Your task to perform on an android device: Open the Play Movies app and select the watchlist tab. Image 0: 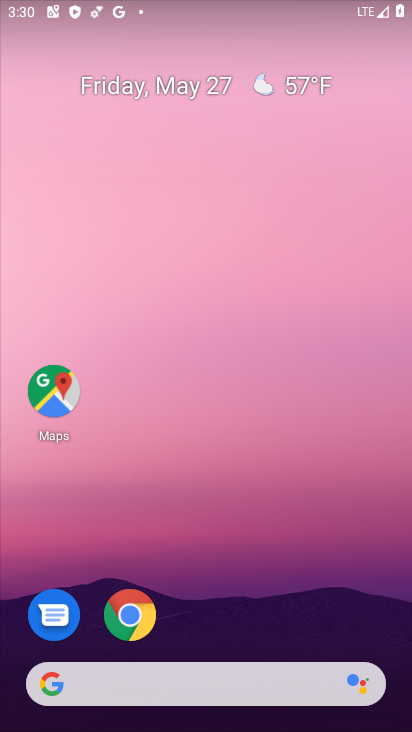
Step 0: drag from (266, 607) to (392, 491)
Your task to perform on an android device: Open the Play Movies app and select the watchlist tab. Image 1: 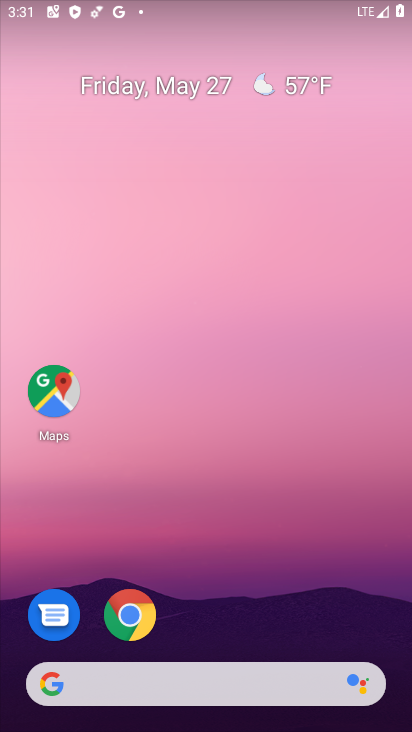
Step 1: drag from (205, 641) to (216, 165)
Your task to perform on an android device: Open the Play Movies app and select the watchlist tab. Image 2: 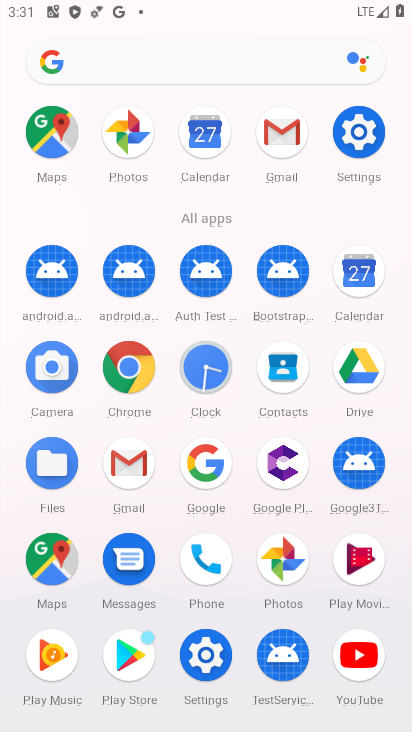
Step 2: click (344, 607)
Your task to perform on an android device: Open the Play Movies app and select the watchlist tab. Image 3: 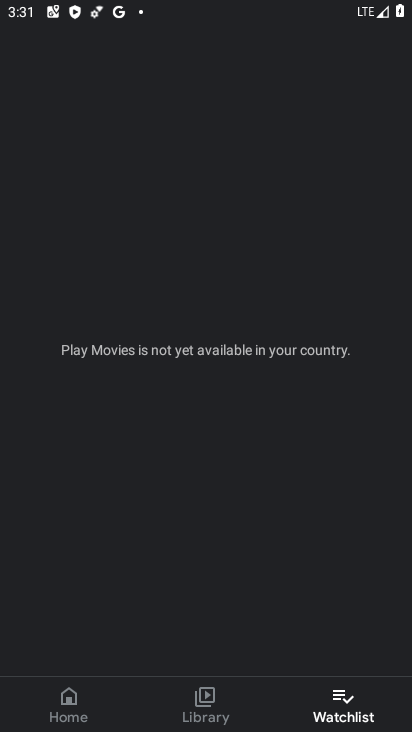
Step 3: click (342, 717)
Your task to perform on an android device: Open the Play Movies app and select the watchlist tab. Image 4: 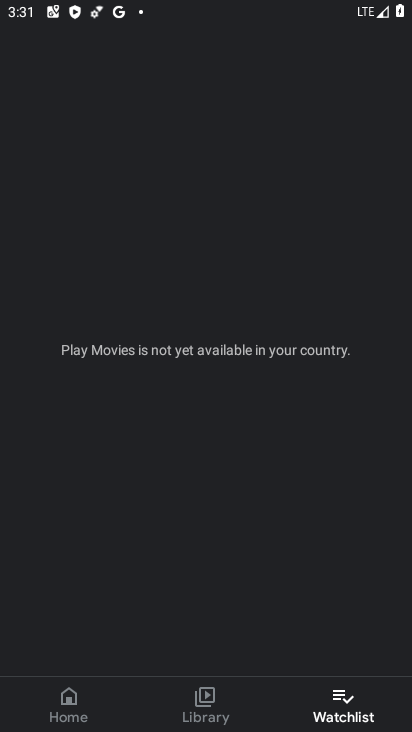
Step 4: task complete